Your task to perform on an android device: allow notifications from all sites in the chrome app Image 0: 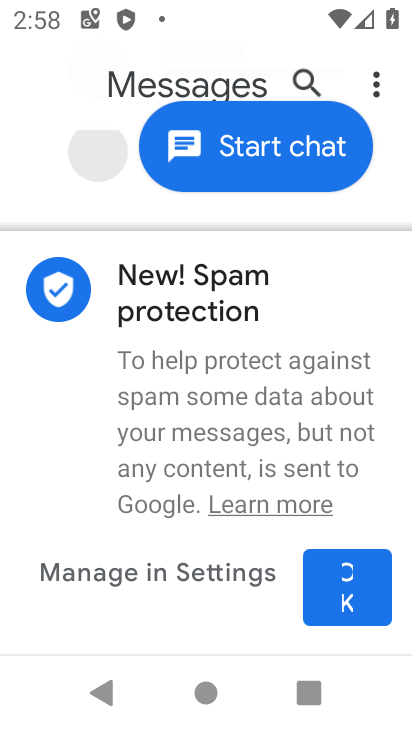
Step 0: press home button
Your task to perform on an android device: allow notifications from all sites in the chrome app Image 1: 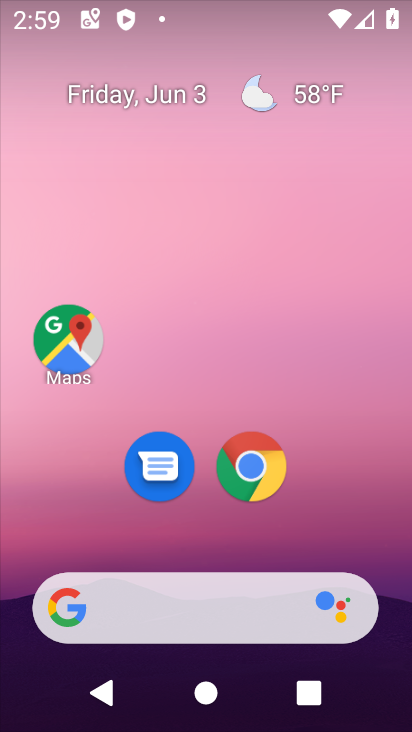
Step 1: drag from (345, 486) to (322, 160)
Your task to perform on an android device: allow notifications from all sites in the chrome app Image 2: 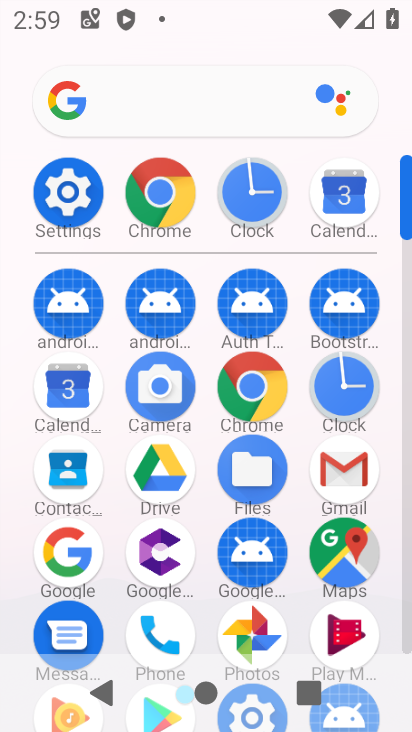
Step 2: drag from (290, 494) to (280, 202)
Your task to perform on an android device: allow notifications from all sites in the chrome app Image 3: 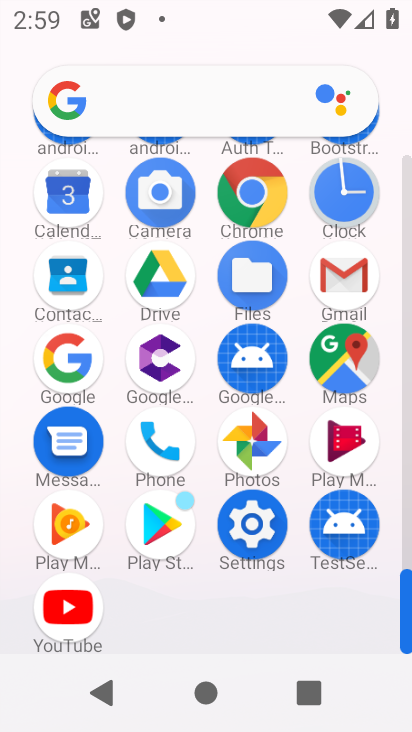
Step 3: click (271, 429)
Your task to perform on an android device: allow notifications from all sites in the chrome app Image 4: 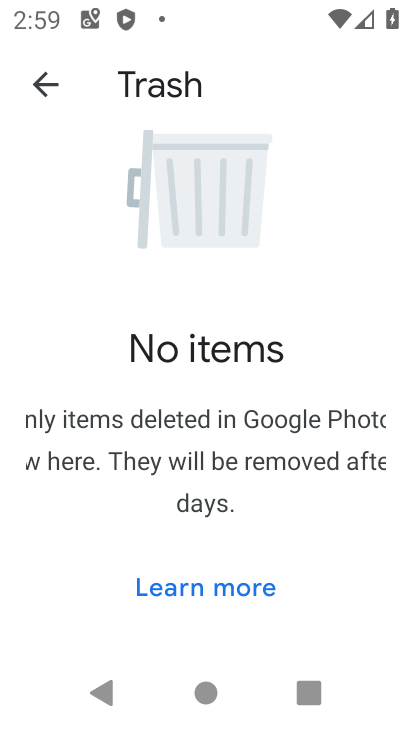
Step 4: press home button
Your task to perform on an android device: allow notifications from all sites in the chrome app Image 5: 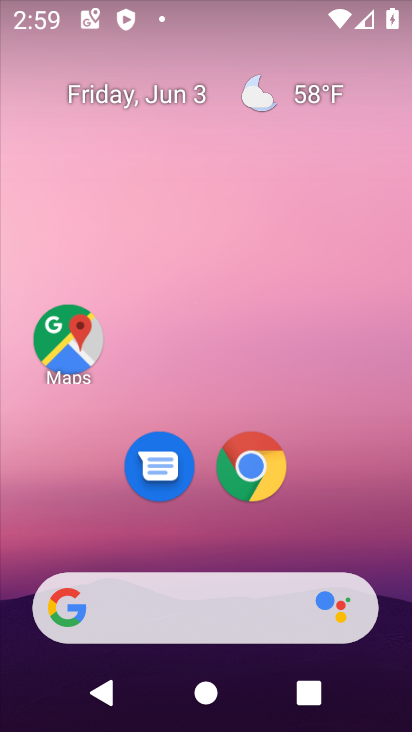
Step 5: click (259, 452)
Your task to perform on an android device: allow notifications from all sites in the chrome app Image 6: 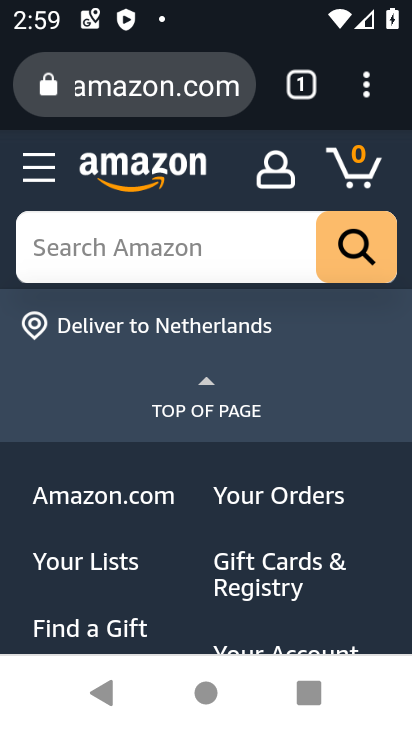
Step 6: click (357, 88)
Your task to perform on an android device: allow notifications from all sites in the chrome app Image 7: 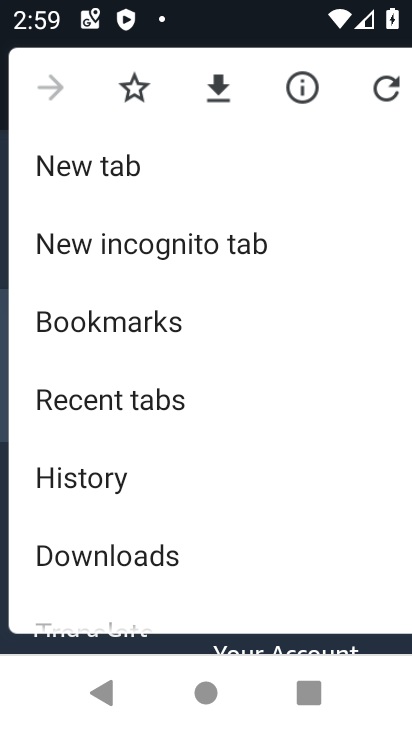
Step 7: drag from (265, 461) to (243, 298)
Your task to perform on an android device: allow notifications from all sites in the chrome app Image 8: 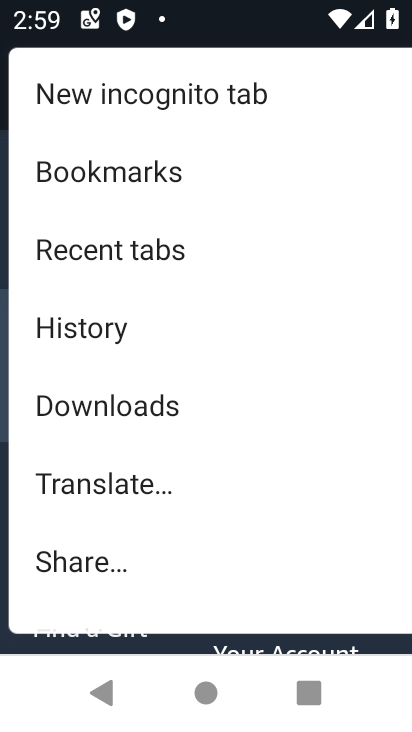
Step 8: drag from (230, 498) to (228, 161)
Your task to perform on an android device: allow notifications from all sites in the chrome app Image 9: 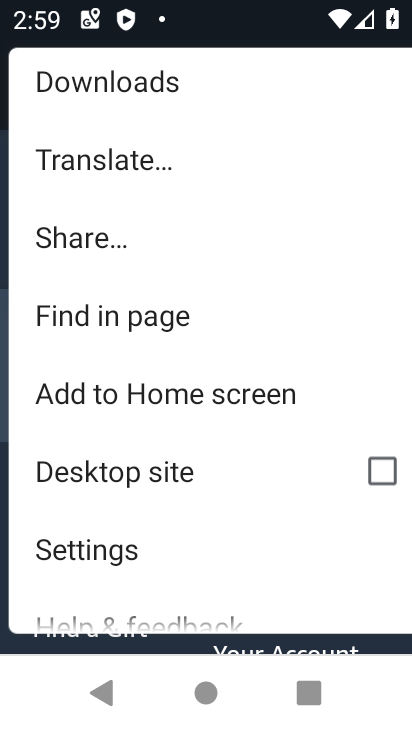
Step 9: click (124, 553)
Your task to perform on an android device: allow notifications from all sites in the chrome app Image 10: 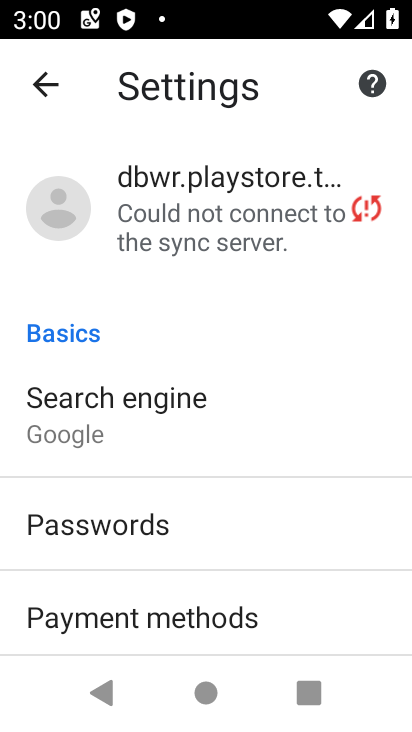
Step 10: drag from (183, 549) to (166, 397)
Your task to perform on an android device: allow notifications from all sites in the chrome app Image 11: 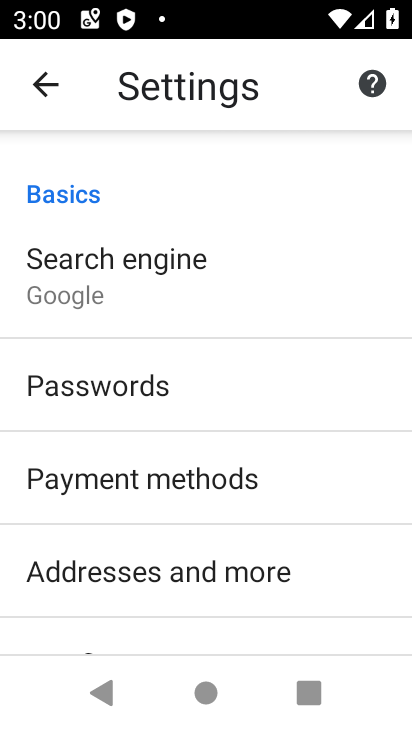
Step 11: drag from (213, 577) to (152, 233)
Your task to perform on an android device: allow notifications from all sites in the chrome app Image 12: 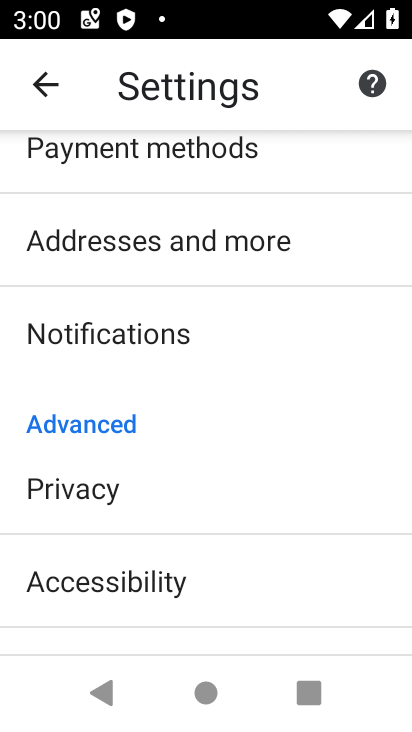
Step 12: click (209, 320)
Your task to perform on an android device: allow notifications from all sites in the chrome app Image 13: 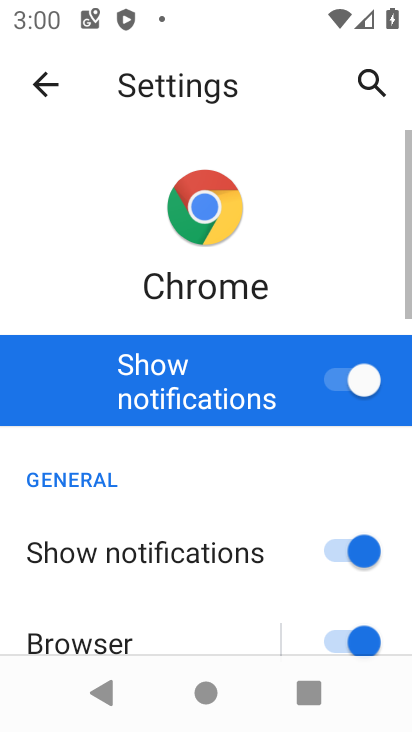
Step 13: drag from (176, 508) to (172, 265)
Your task to perform on an android device: allow notifications from all sites in the chrome app Image 14: 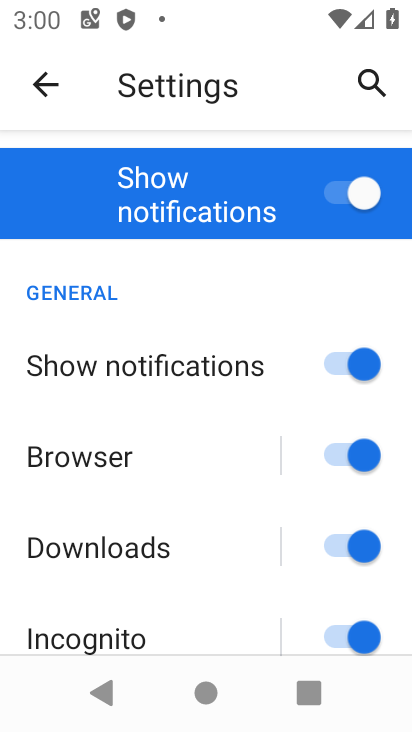
Step 14: drag from (200, 474) to (246, 170)
Your task to perform on an android device: allow notifications from all sites in the chrome app Image 15: 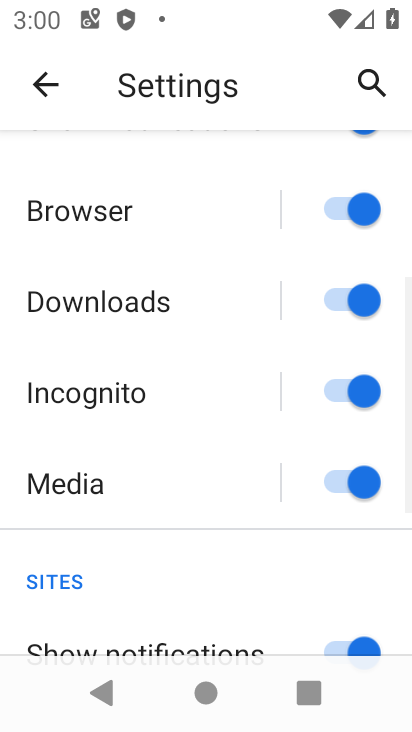
Step 15: drag from (130, 528) to (142, 160)
Your task to perform on an android device: allow notifications from all sites in the chrome app Image 16: 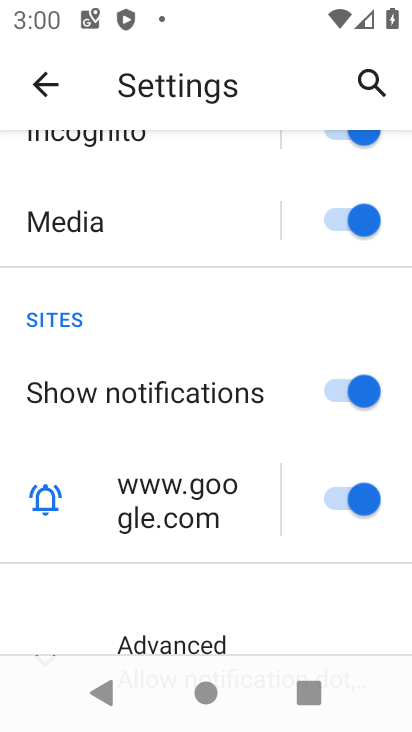
Step 16: drag from (167, 500) to (163, 193)
Your task to perform on an android device: allow notifications from all sites in the chrome app Image 17: 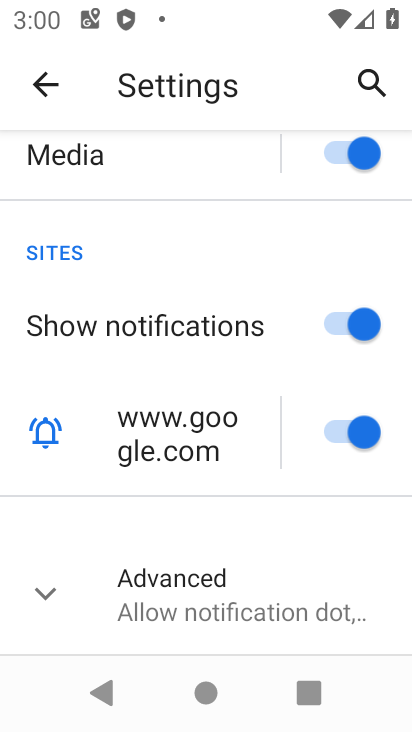
Step 17: click (219, 571)
Your task to perform on an android device: allow notifications from all sites in the chrome app Image 18: 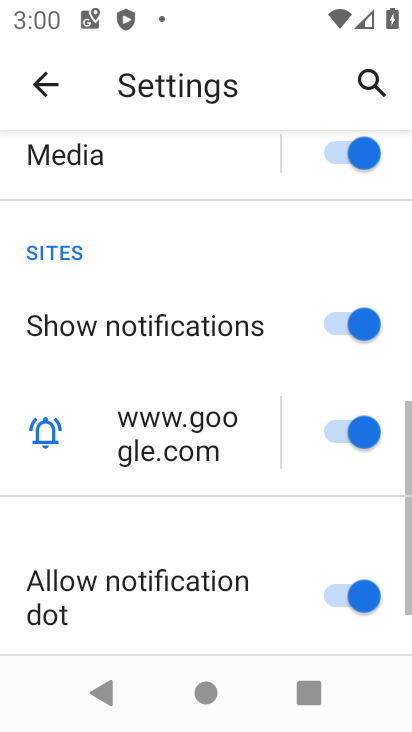
Step 18: task complete